Your task to perform on an android device: Go to Google maps Image 0: 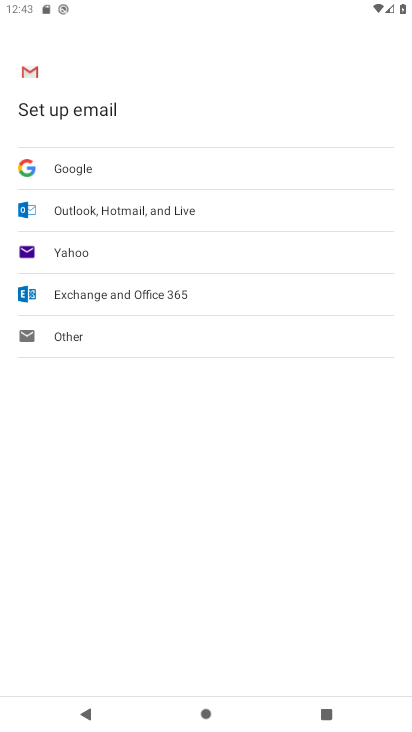
Step 0: press home button
Your task to perform on an android device: Go to Google maps Image 1: 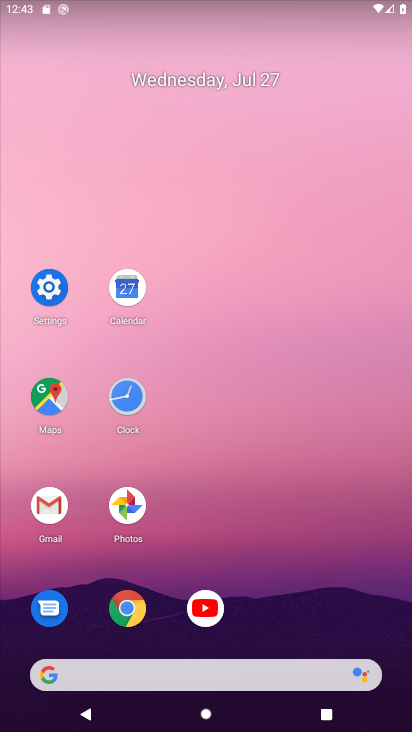
Step 1: click (48, 397)
Your task to perform on an android device: Go to Google maps Image 2: 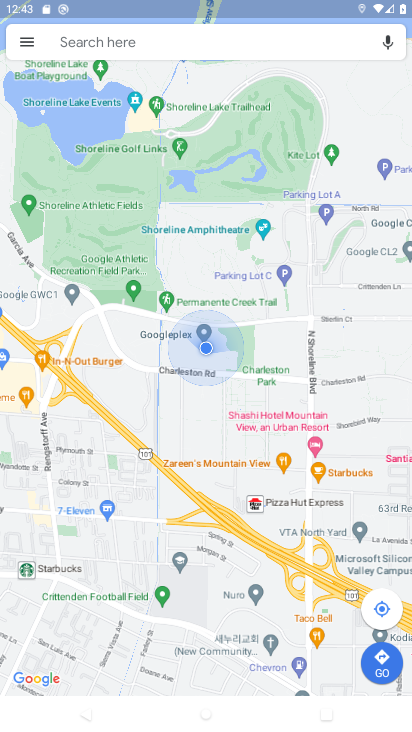
Step 2: task complete